Your task to perform on an android device: install app "Microsoft Excel" Image 0: 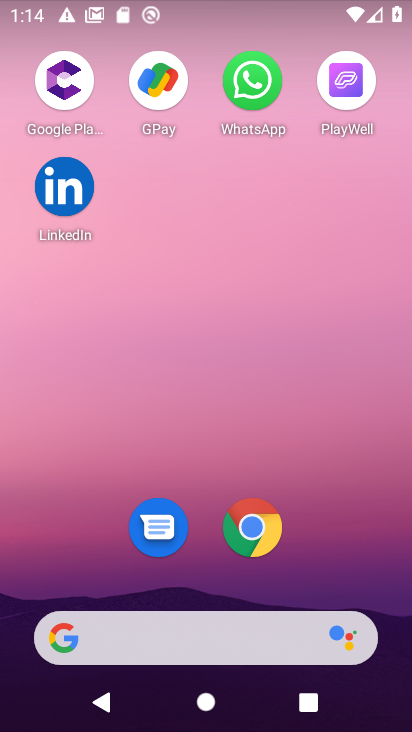
Step 0: drag from (232, 635) to (228, 86)
Your task to perform on an android device: install app "Microsoft Excel" Image 1: 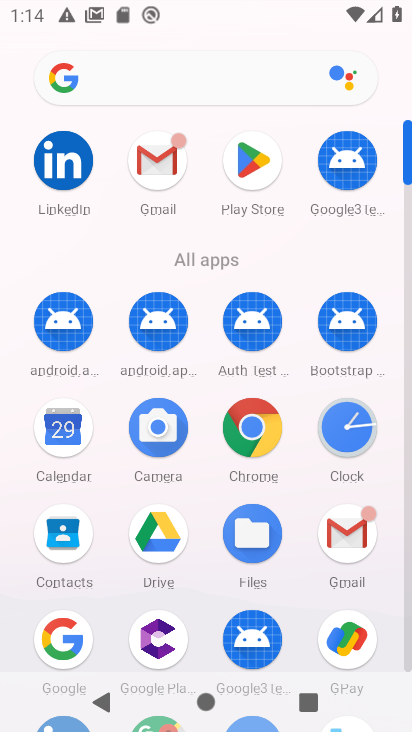
Step 1: click (249, 159)
Your task to perform on an android device: install app "Microsoft Excel" Image 2: 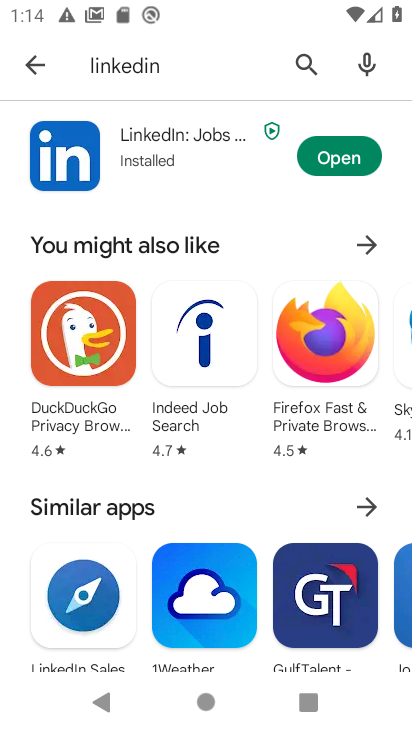
Step 2: click (303, 61)
Your task to perform on an android device: install app "Microsoft Excel" Image 3: 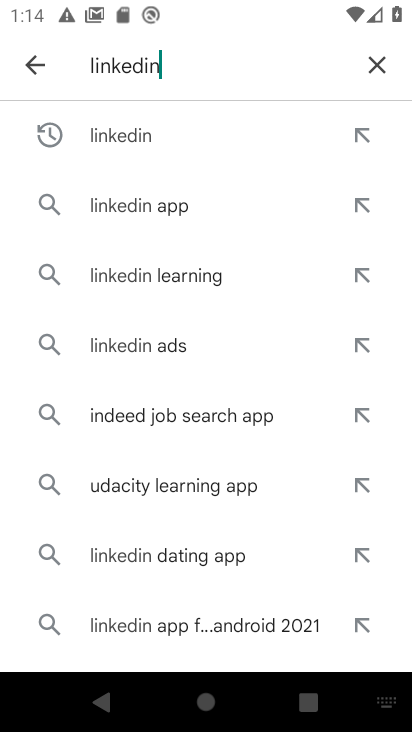
Step 3: click (379, 58)
Your task to perform on an android device: install app "Microsoft Excel" Image 4: 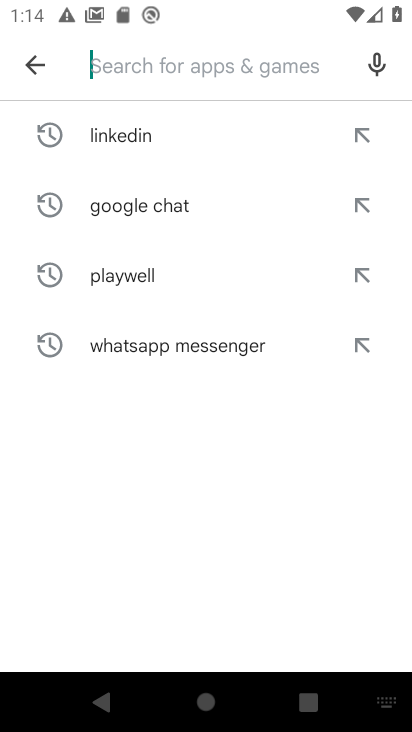
Step 4: type "Microsoft Excel"
Your task to perform on an android device: install app "Microsoft Excel" Image 5: 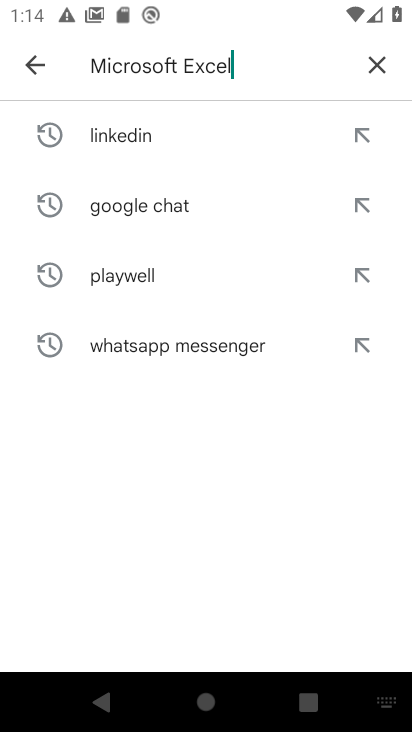
Step 5: type ""
Your task to perform on an android device: install app "Microsoft Excel" Image 6: 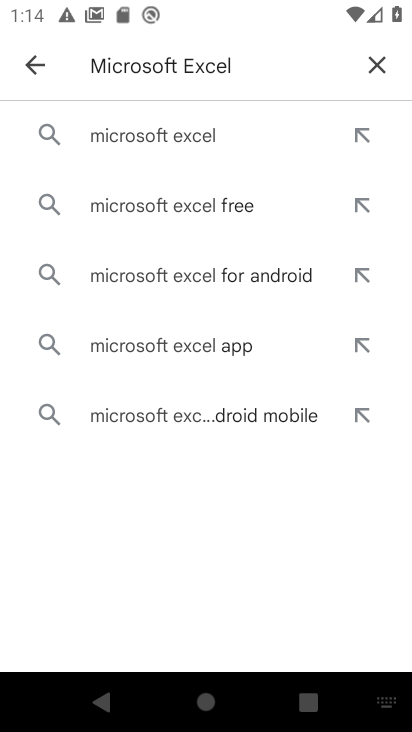
Step 6: click (171, 132)
Your task to perform on an android device: install app "Microsoft Excel" Image 7: 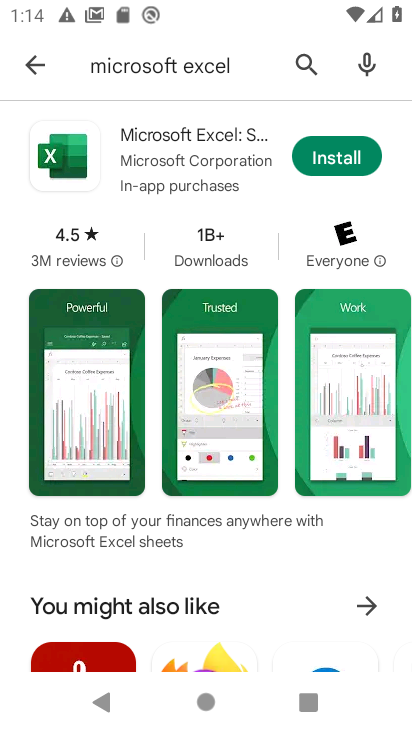
Step 7: click (339, 152)
Your task to perform on an android device: install app "Microsoft Excel" Image 8: 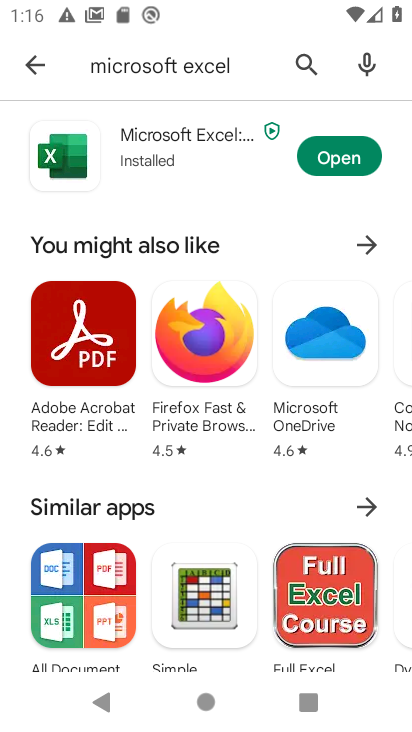
Step 8: task complete